Your task to perform on an android device: find which apps use the phone's location Image 0: 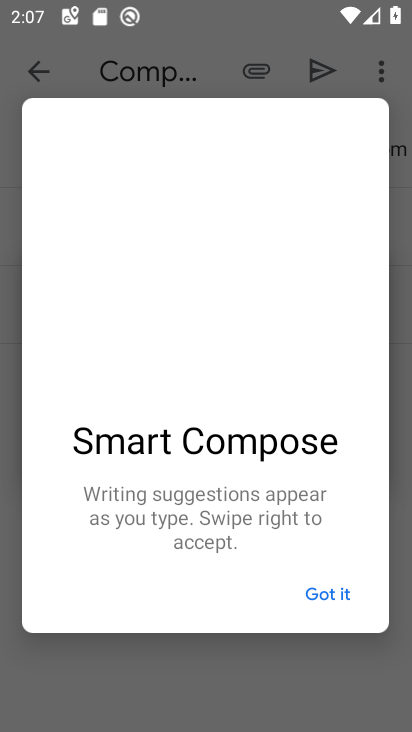
Step 0: press home button
Your task to perform on an android device: find which apps use the phone's location Image 1: 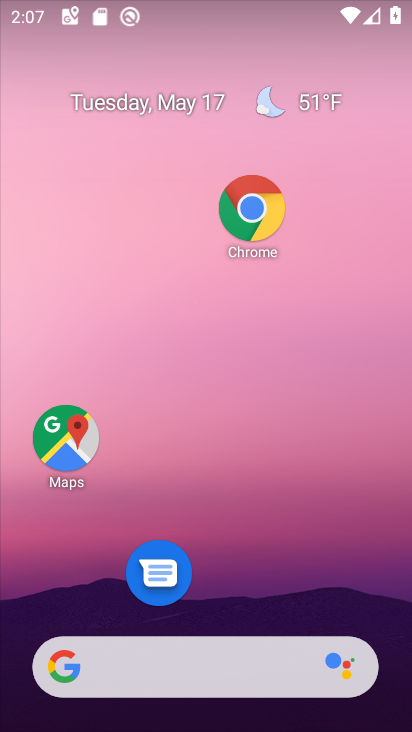
Step 1: drag from (213, 625) to (218, 133)
Your task to perform on an android device: find which apps use the phone's location Image 2: 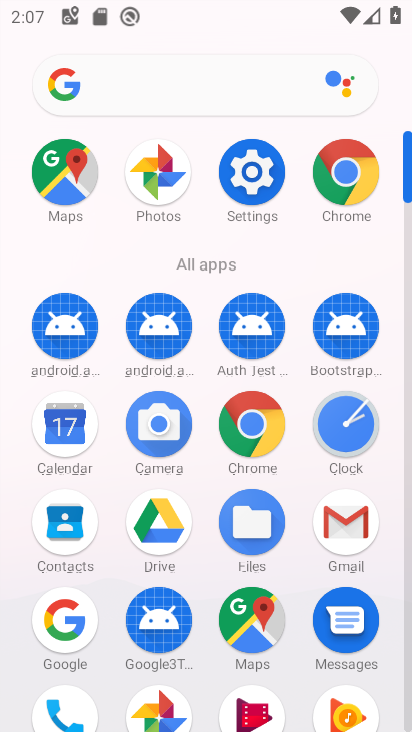
Step 2: click (261, 171)
Your task to perform on an android device: find which apps use the phone's location Image 3: 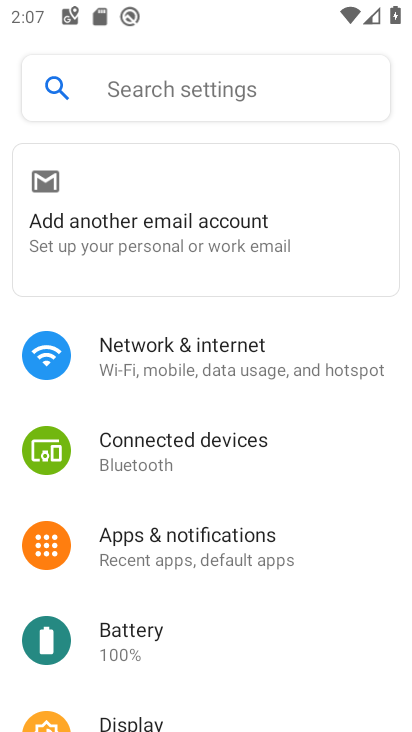
Step 3: click (229, 535)
Your task to perform on an android device: find which apps use the phone's location Image 4: 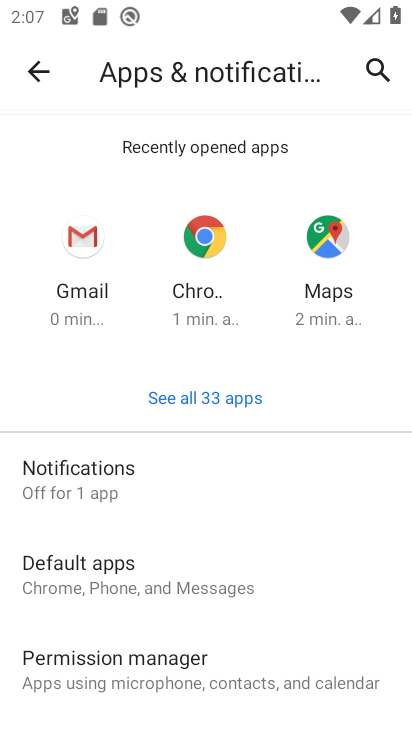
Step 4: click (27, 61)
Your task to perform on an android device: find which apps use the phone's location Image 5: 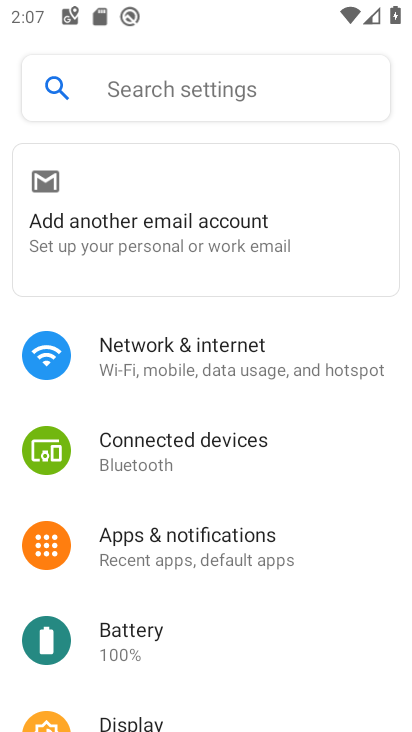
Step 5: drag from (192, 468) to (193, 53)
Your task to perform on an android device: find which apps use the phone's location Image 6: 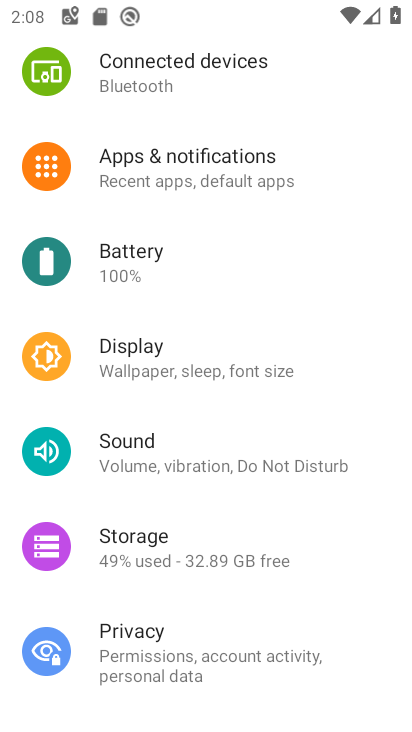
Step 6: drag from (203, 539) to (182, 153)
Your task to perform on an android device: find which apps use the phone's location Image 7: 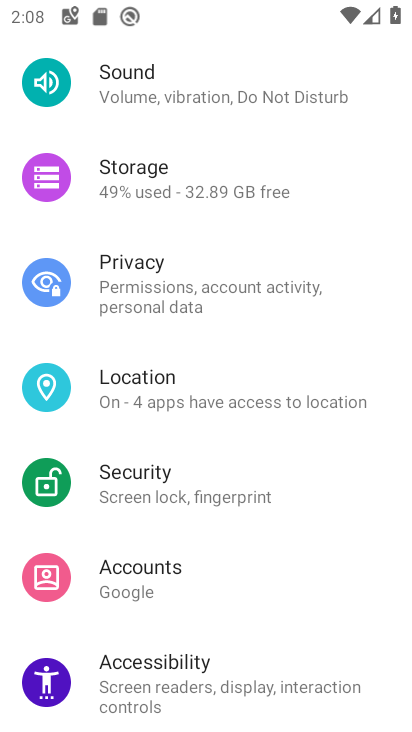
Step 7: click (155, 388)
Your task to perform on an android device: find which apps use the phone's location Image 8: 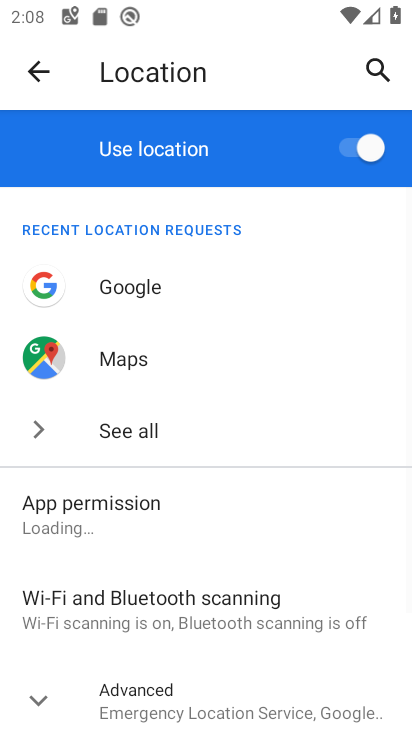
Step 8: click (125, 532)
Your task to perform on an android device: find which apps use the phone's location Image 9: 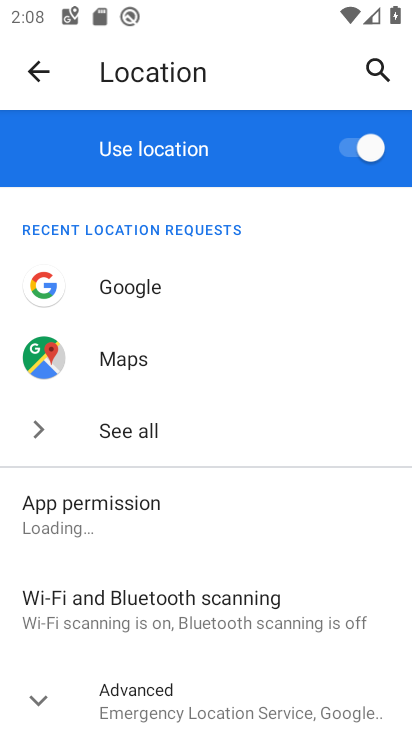
Step 9: task complete